Your task to perform on an android device: Open the Play Movies app and select the watchlist tab. Image 0: 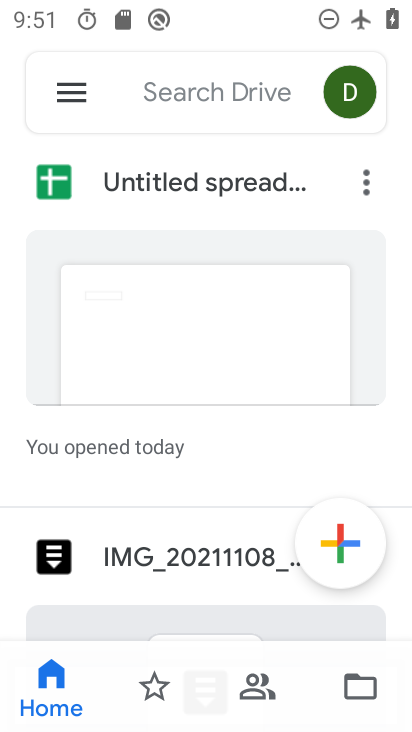
Step 0: press home button
Your task to perform on an android device: Open the Play Movies app and select the watchlist tab. Image 1: 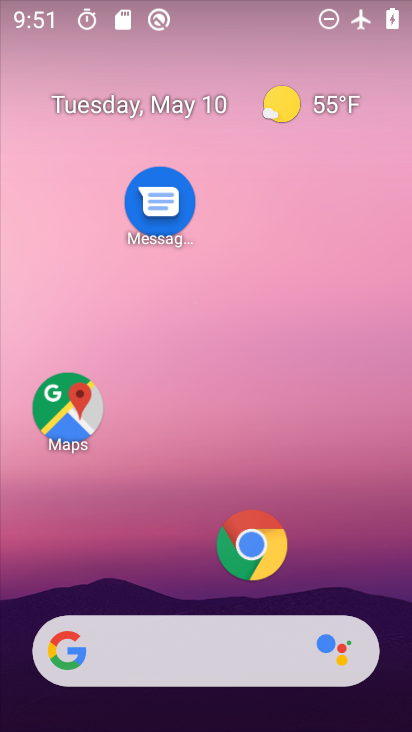
Step 1: drag from (165, 576) to (273, 7)
Your task to perform on an android device: Open the Play Movies app and select the watchlist tab. Image 2: 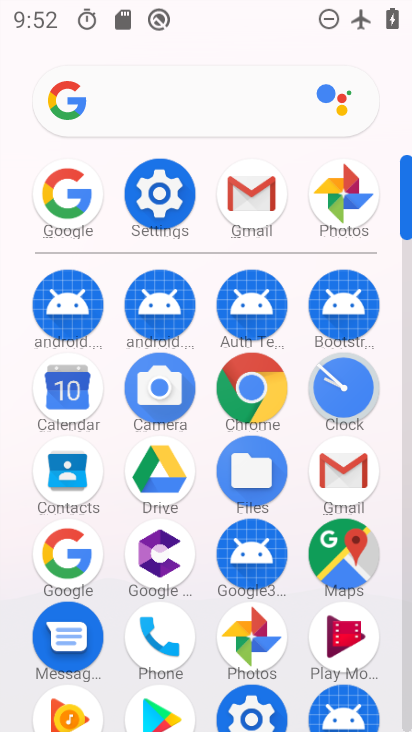
Step 2: click (310, 626)
Your task to perform on an android device: Open the Play Movies app and select the watchlist tab. Image 3: 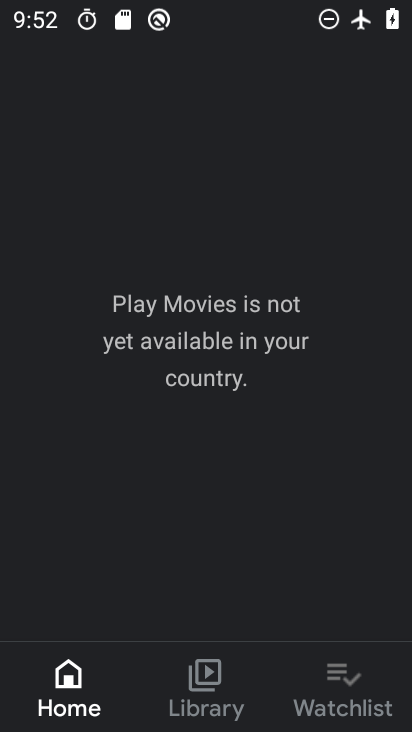
Step 3: click (333, 666)
Your task to perform on an android device: Open the Play Movies app and select the watchlist tab. Image 4: 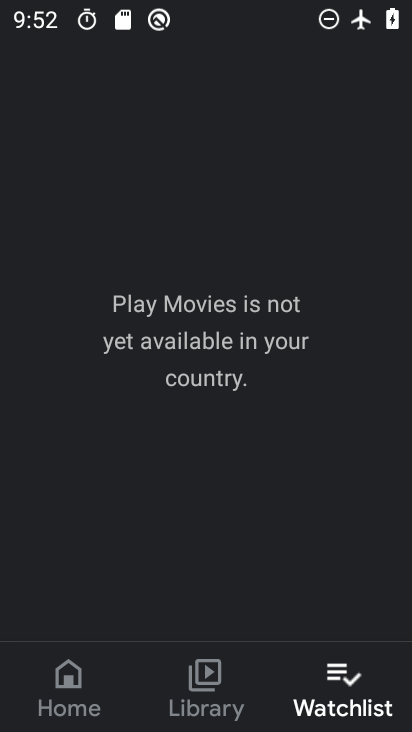
Step 4: task complete